Your task to perform on an android device: open device folders in google photos Image 0: 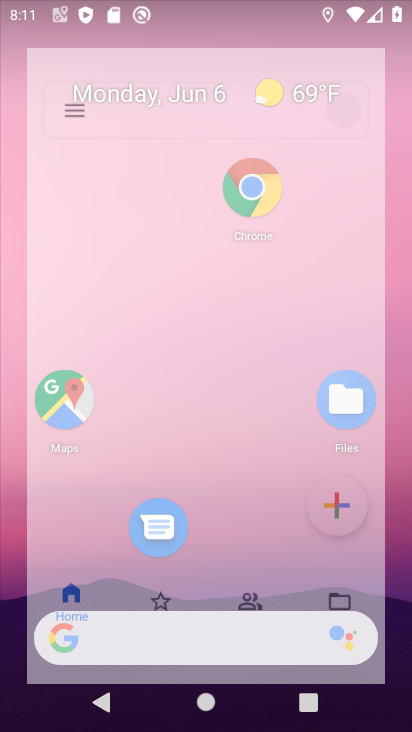
Step 0: drag from (246, 564) to (303, 177)
Your task to perform on an android device: open device folders in google photos Image 1: 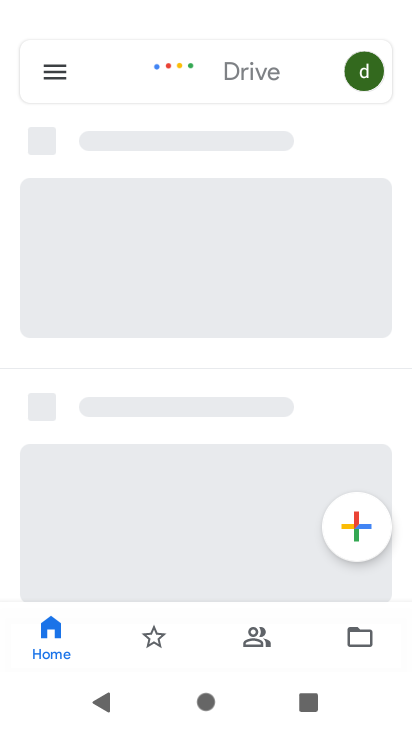
Step 1: press home button
Your task to perform on an android device: open device folders in google photos Image 2: 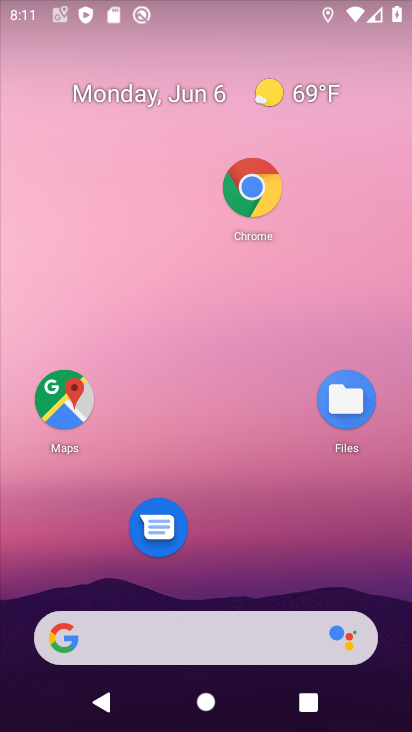
Step 2: drag from (225, 554) to (190, 86)
Your task to perform on an android device: open device folders in google photos Image 3: 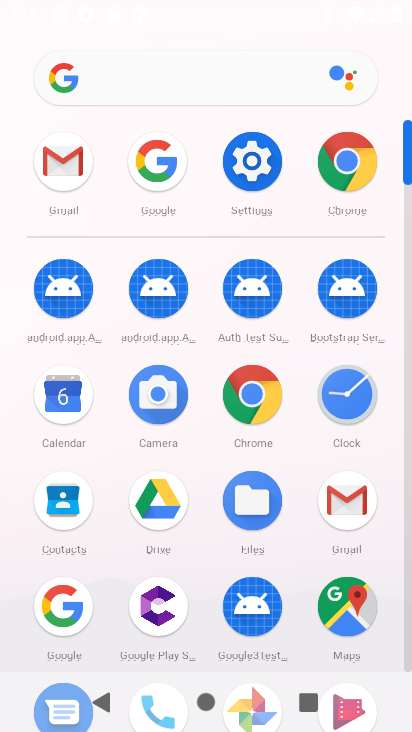
Step 3: drag from (189, 546) to (188, 276)
Your task to perform on an android device: open device folders in google photos Image 4: 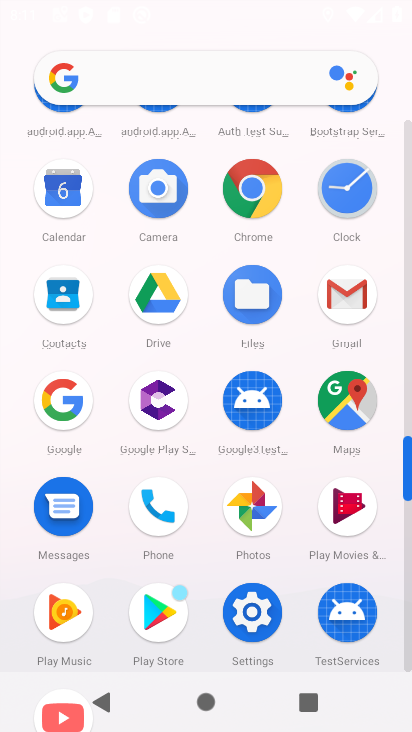
Step 4: click (248, 504)
Your task to perform on an android device: open device folders in google photos Image 5: 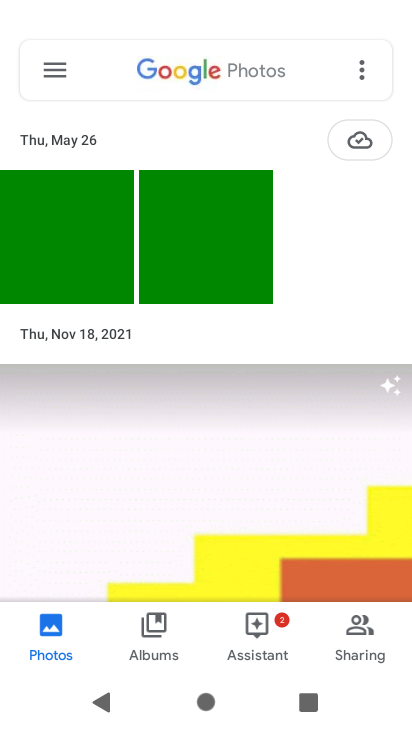
Step 5: click (52, 71)
Your task to perform on an android device: open device folders in google photos Image 6: 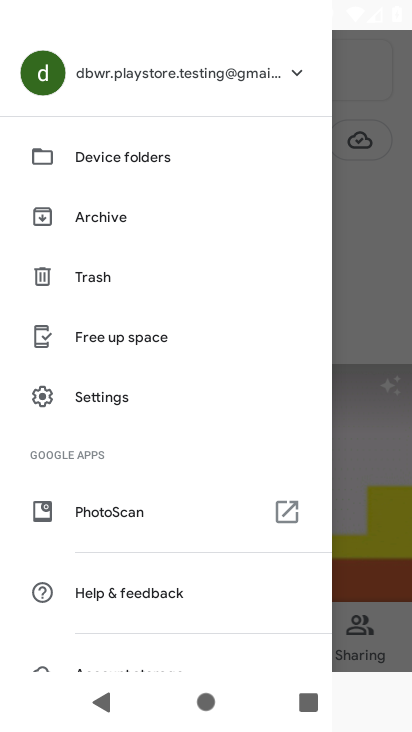
Step 6: click (146, 159)
Your task to perform on an android device: open device folders in google photos Image 7: 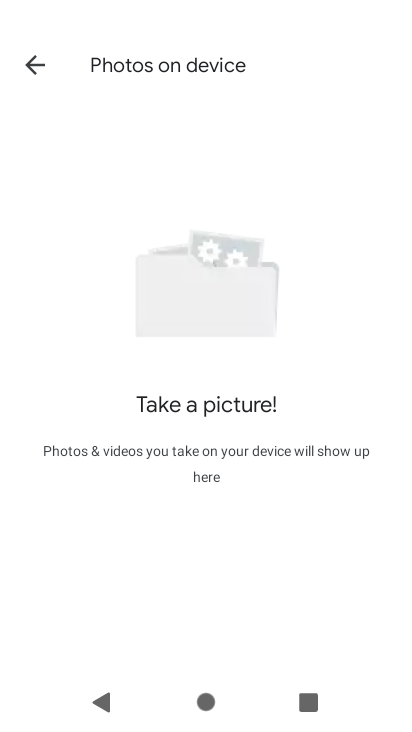
Step 7: task complete